Your task to perform on an android device: Open settings Image 0: 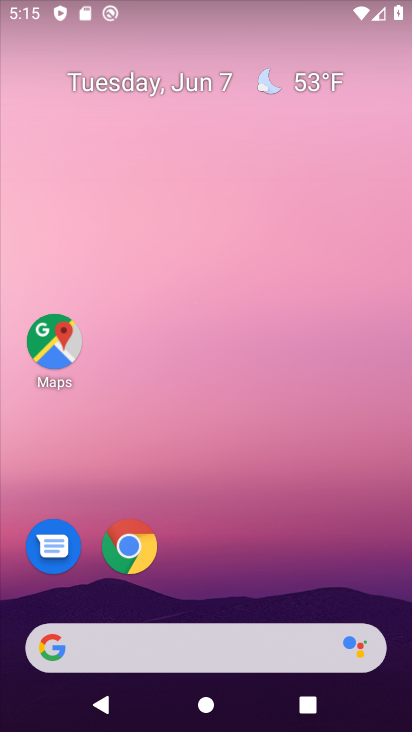
Step 0: drag from (240, 578) to (284, 67)
Your task to perform on an android device: Open settings Image 1: 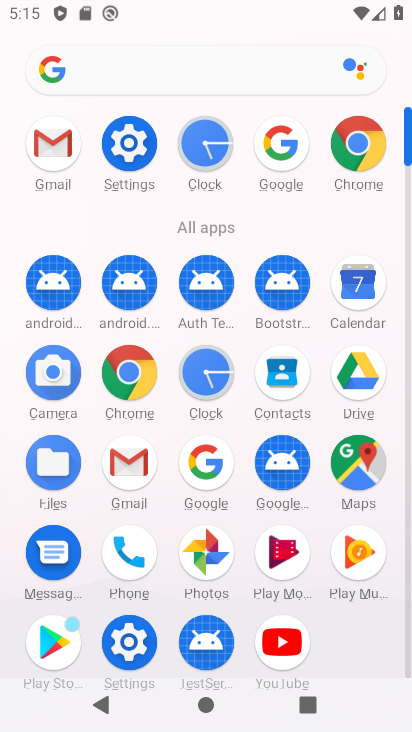
Step 1: click (138, 640)
Your task to perform on an android device: Open settings Image 2: 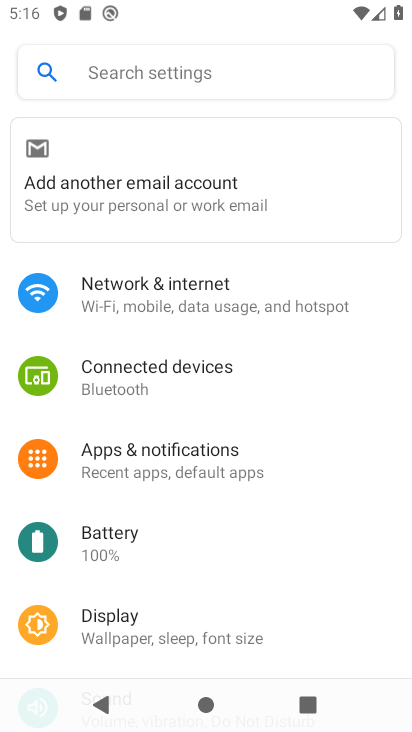
Step 2: task complete